Your task to perform on an android device: change the clock display to digital Image 0: 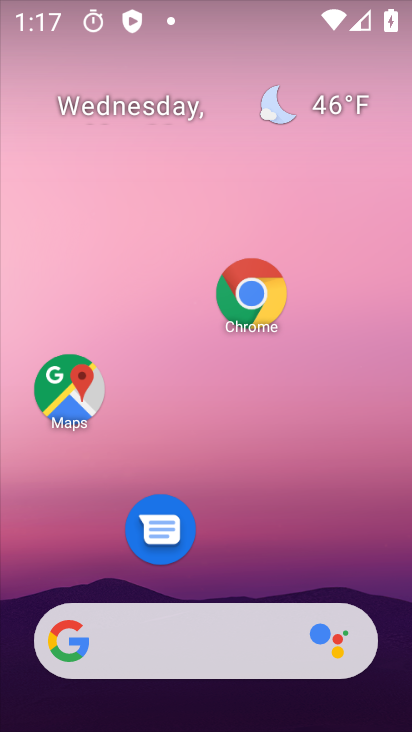
Step 0: drag from (226, 590) to (174, 77)
Your task to perform on an android device: change the clock display to digital Image 1: 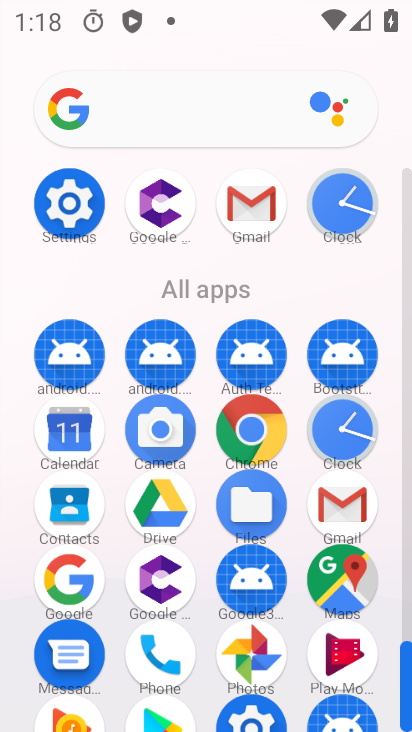
Step 1: click (62, 196)
Your task to perform on an android device: change the clock display to digital Image 2: 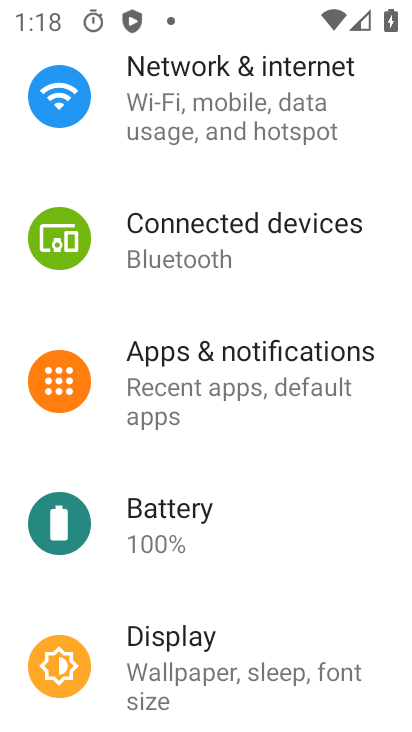
Step 2: click (176, 677)
Your task to perform on an android device: change the clock display to digital Image 3: 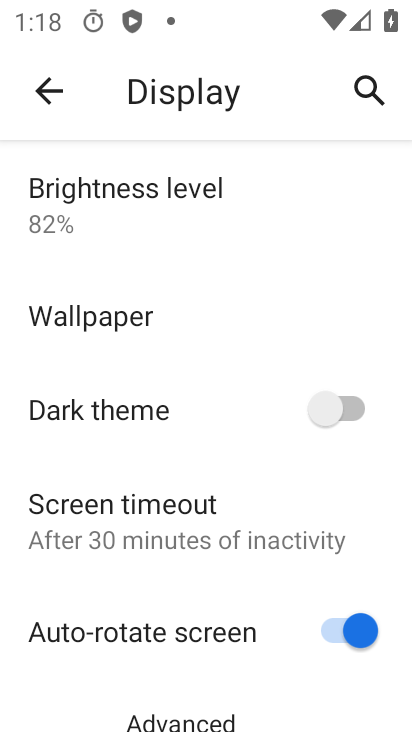
Step 3: press home button
Your task to perform on an android device: change the clock display to digital Image 4: 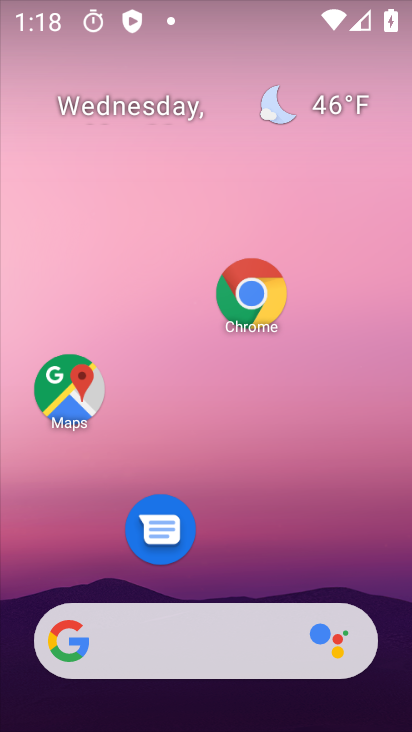
Step 4: drag from (222, 597) to (208, 383)
Your task to perform on an android device: change the clock display to digital Image 5: 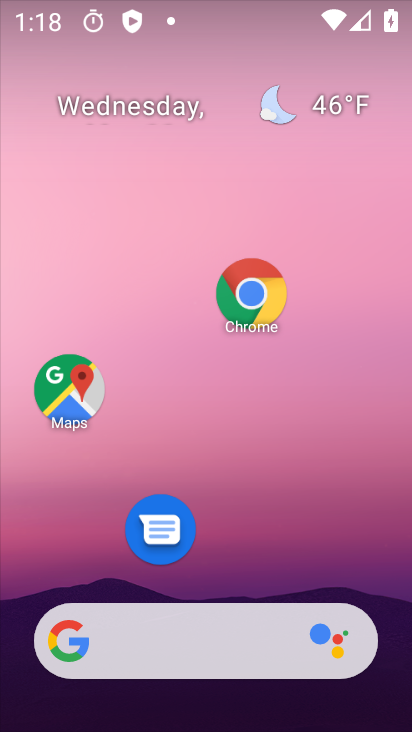
Step 5: drag from (197, 559) to (315, 85)
Your task to perform on an android device: change the clock display to digital Image 6: 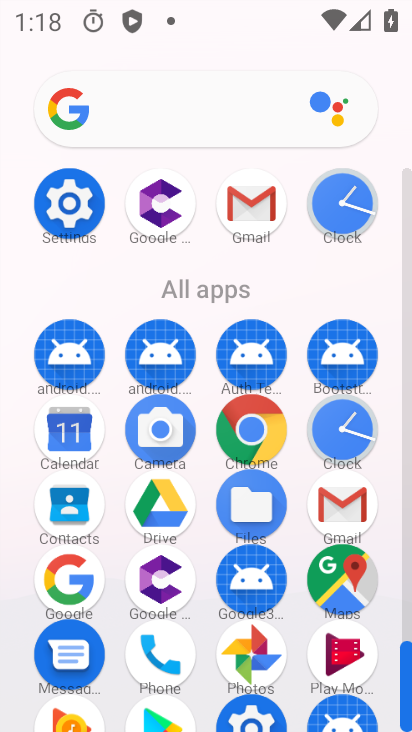
Step 6: click (350, 452)
Your task to perform on an android device: change the clock display to digital Image 7: 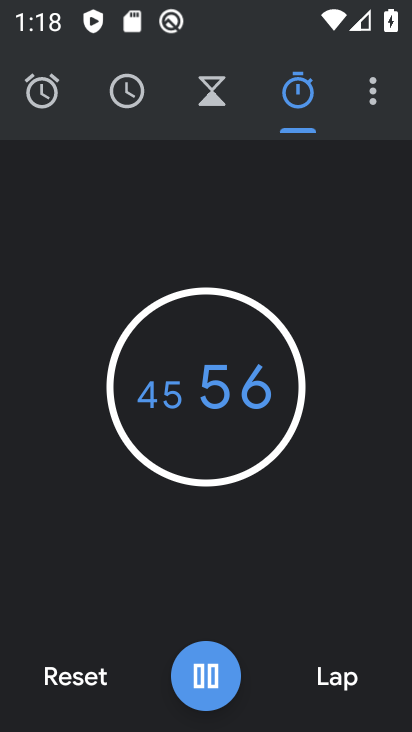
Step 7: click (358, 86)
Your task to perform on an android device: change the clock display to digital Image 8: 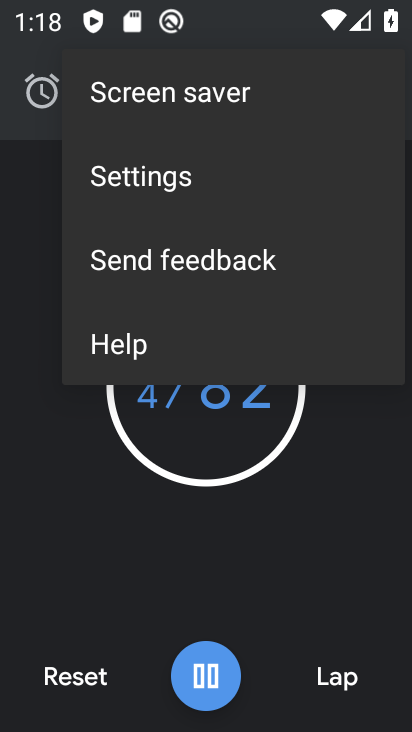
Step 8: click (190, 162)
Your task to perform on an android device: change the clock display to digital Image 9: 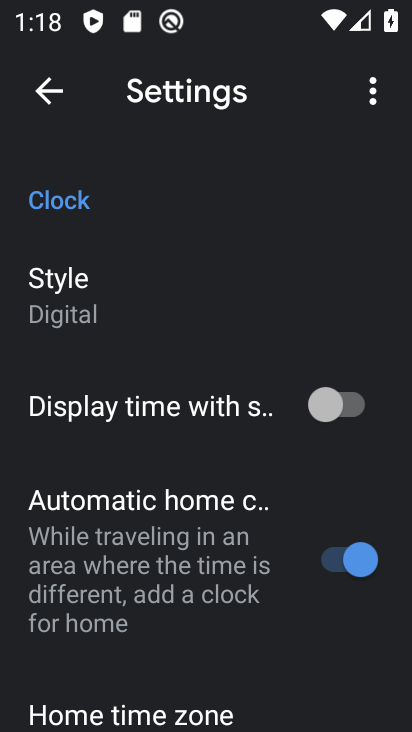
Step 9: click (164, 272)
Your task to perform on an android device: change the clock display to digital Image 10: 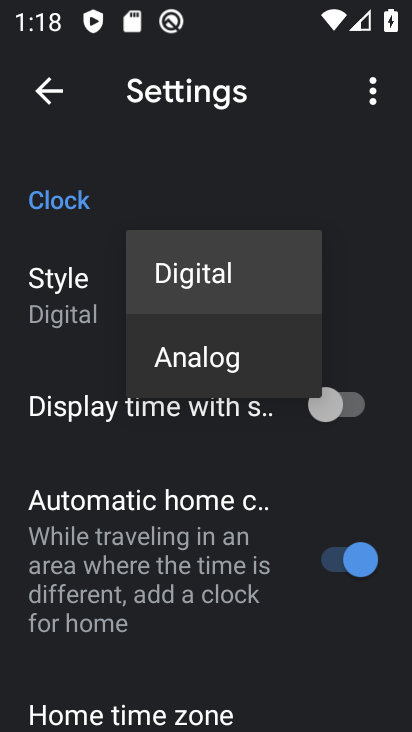
Step 10: task complete